Your task to perform on an android device: Go to settings Image 0: 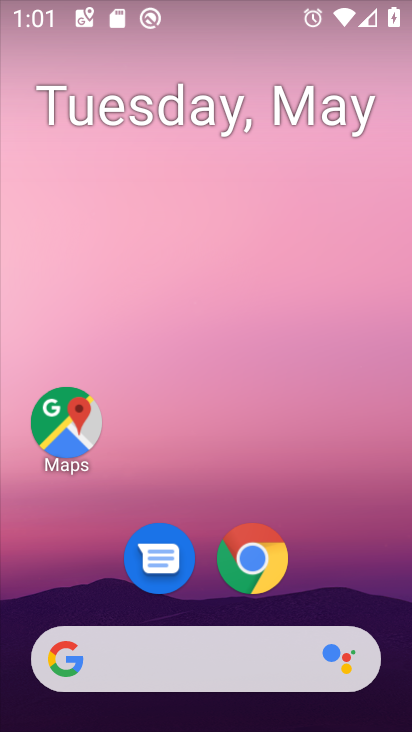
Step 0: drag from (372, 594) to (279, 30)
Your task to perform on an android device: Go to settings Image 1: 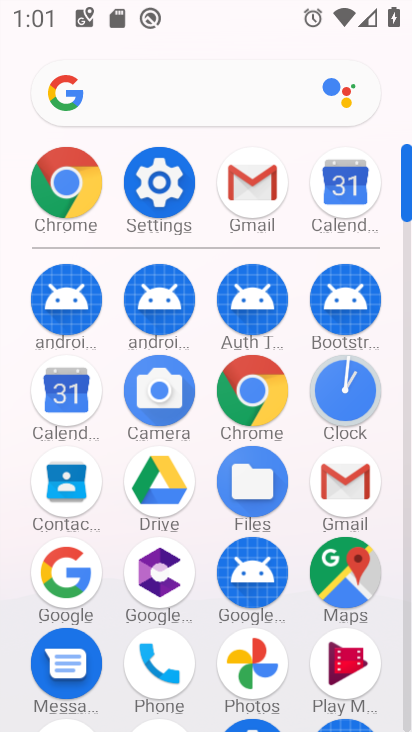
Step 1: click (178, 187)
Your task to perform on an android device: Go to settings Image 2: 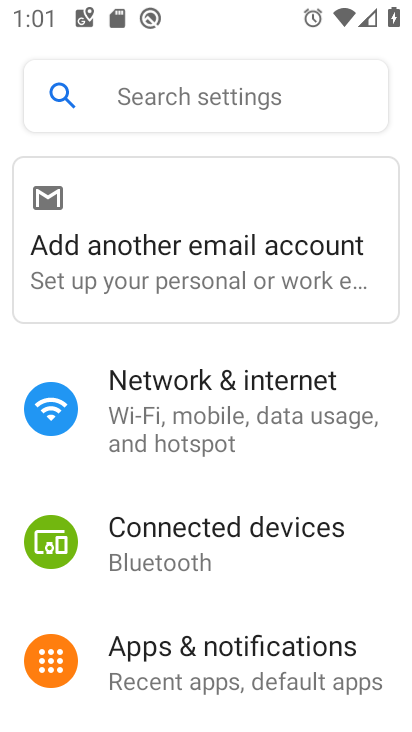
Step 2: task complete